Your task to perform on an android device: Open location settings Image 0: 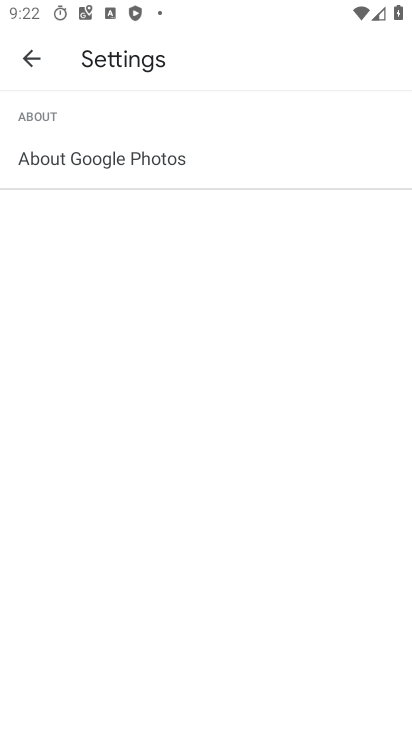
Step 0: press home button
Your task to perform on an android device: Open location settings Image 1: 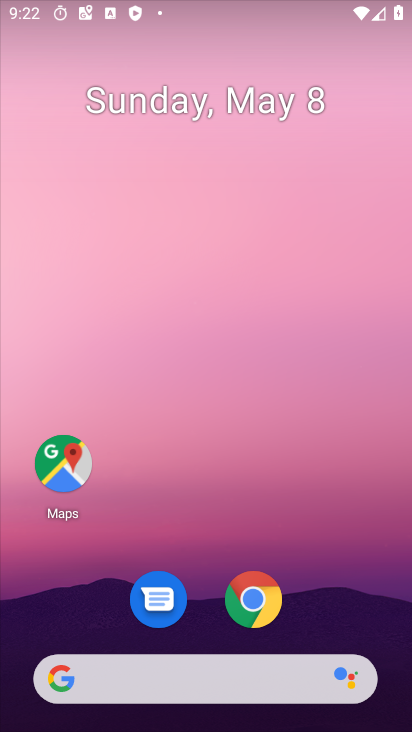
Step 1: drag from (230, 616) to (145, 26)
Your task to perform on an android device: Open location settings Image 2: 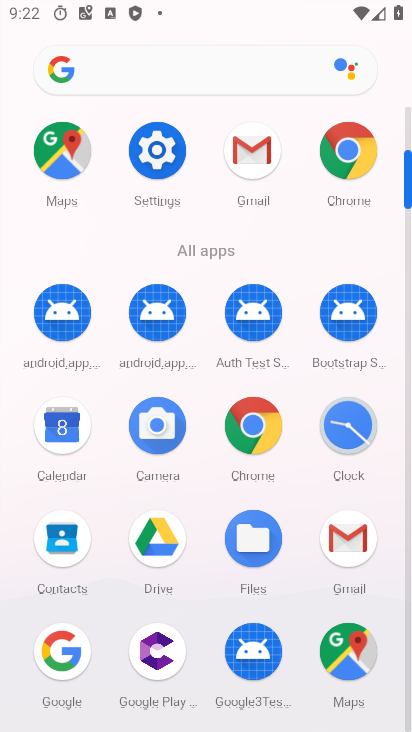
Step 2: click (150, 170)
Your task to perform on an android device: Open location settings Image 3: 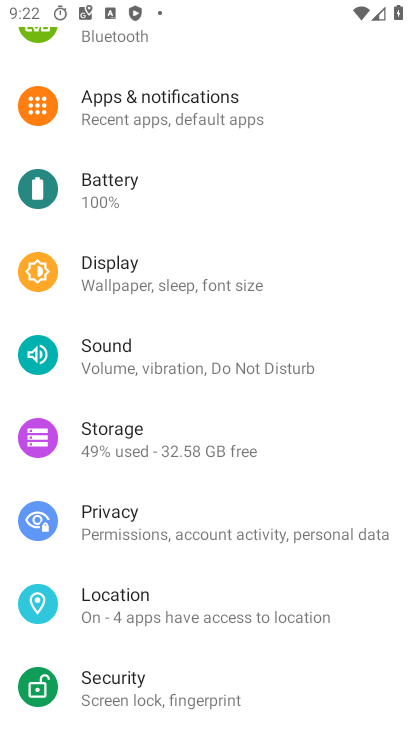
Step 3: click (132, 604)
Your task to perform on an android device: Open location settings Image 4: 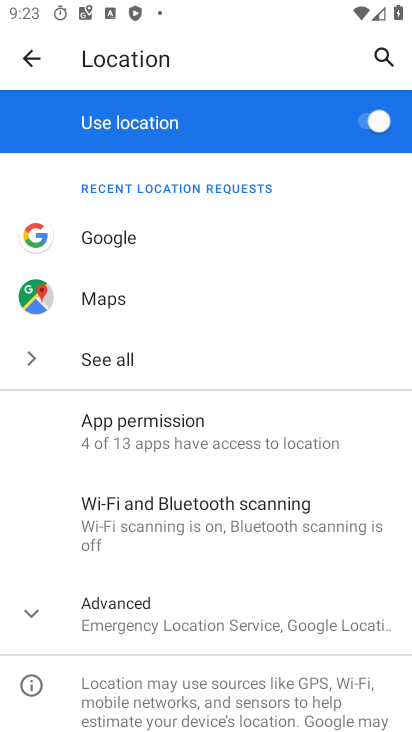
Step 4: task complete